Your task to perform on an android device: turn on priority inbox in the gmail app Image 0: 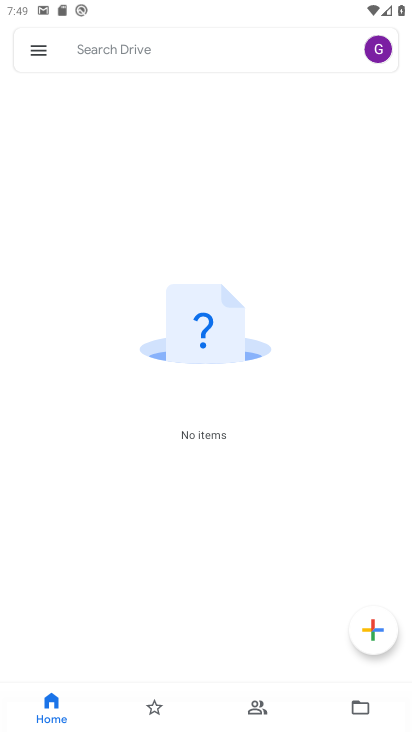
Step 0: press home button
Your task to perform on an android device: turn on priority inbox in the gmail app Image 1: 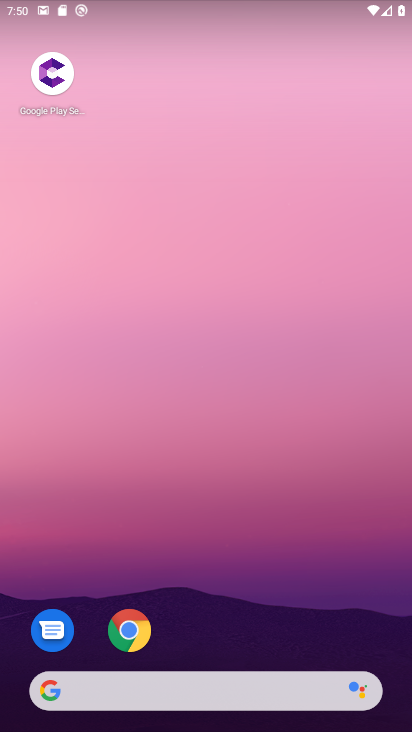
Step 1: drag from (217, 624) to (236, 154)
Your task to perform on an android device: turn on priority inbox in the gmail app Image 2: 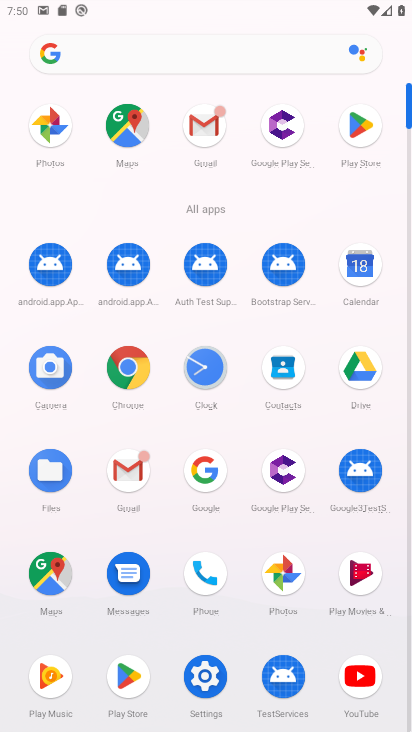
Step 2: click (212, 132)
Your task to perform on an android device: turn on priority inbox in the gmail app Image 3: 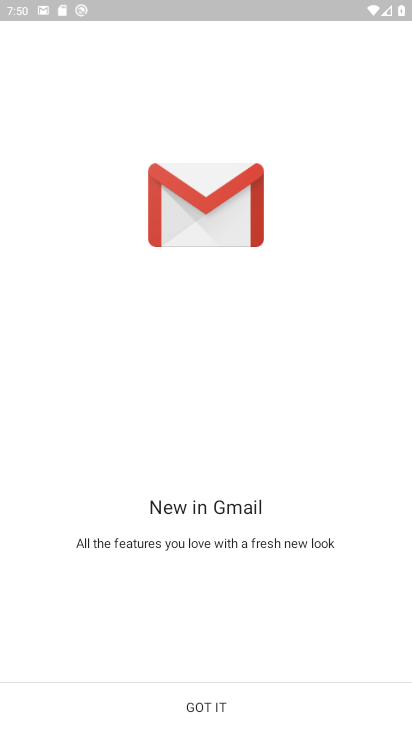
Step 3: click (246, 702)
Your task to perform on an android device: turn on priority inbox in the gmail app Image 4: 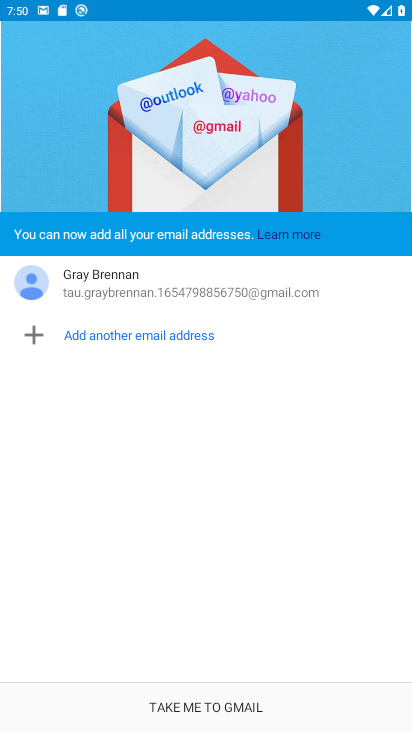
Step 4: click (246, 702)
Your task to perform on an android device: turn on priority inbox in the gmail app Image 5: 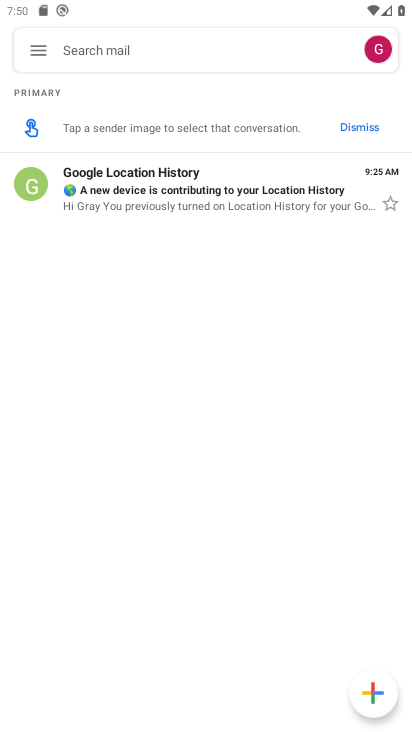
Step 5: click (29, 47)
Your task to perform on an android device: turn on priority inbox in the gmail app Image 6: 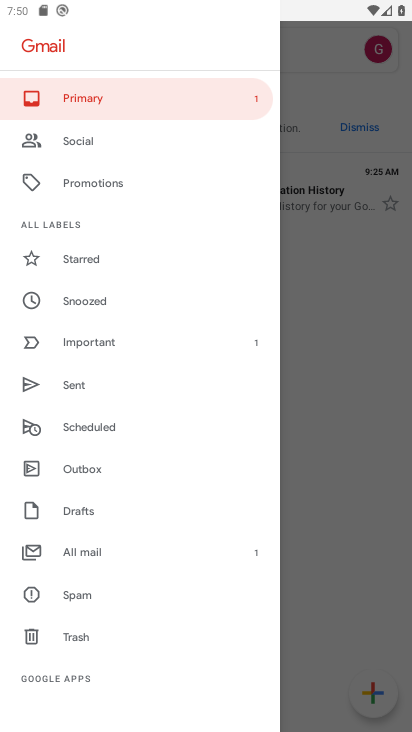
Step 6: drag from (109, 662) to (161, 351)
Your task to perform on an android device: turn on priority inbox in the gmail app Image 7: 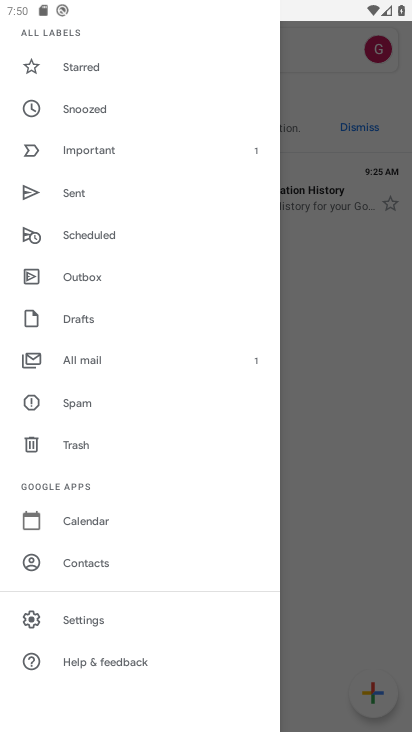
Step 7: click (98, 608)
Your task to perform on an android device: turn on priority inbox in the gmail app Image 8: 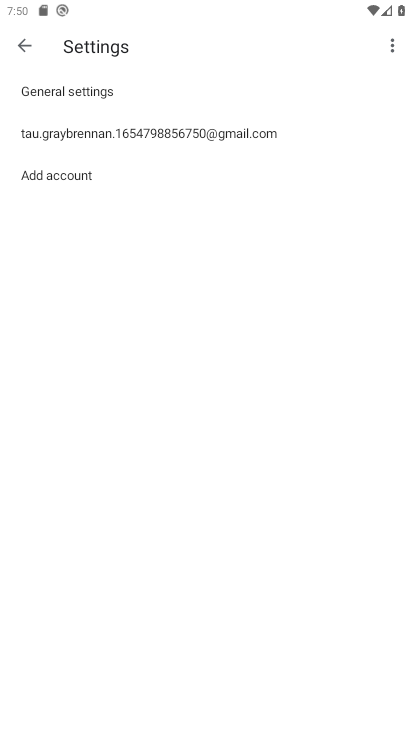
Step 8: click (99, 125)
Your task to perform on an android device: turn on priority inbox in the gmail app Image 9: 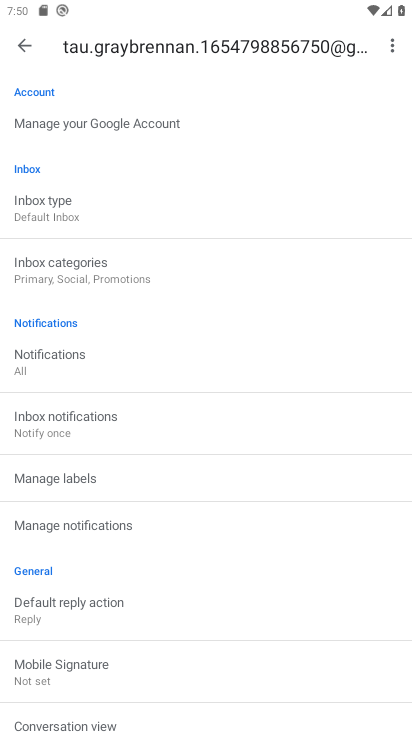
Step 9: click (107, 198)
Your task to perform on an android device: turn on priority inbox in the gmail app Image 10: 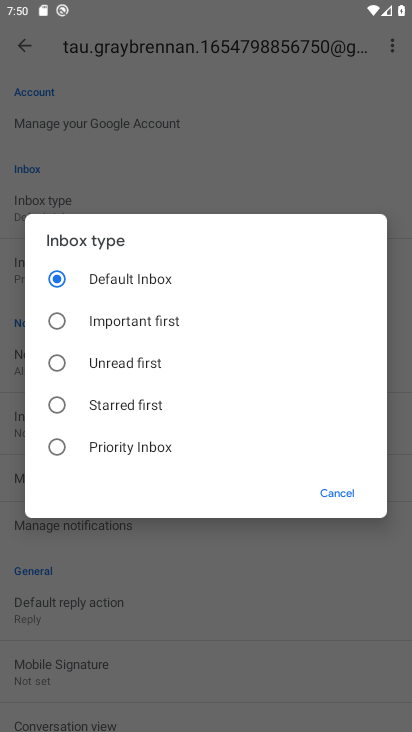
Step 10: click (126, 445)
Your task to perform on an android device: turn on priority inbox in the gmail app Image 11: 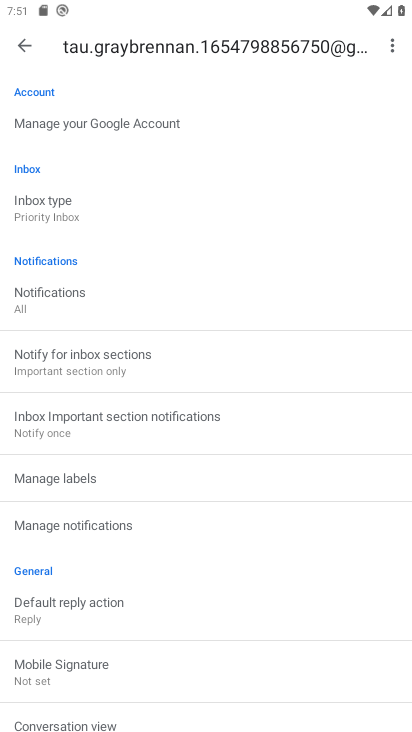
Step 11: task complete